Your task to perform on an android device: Open Android settings Image 0: 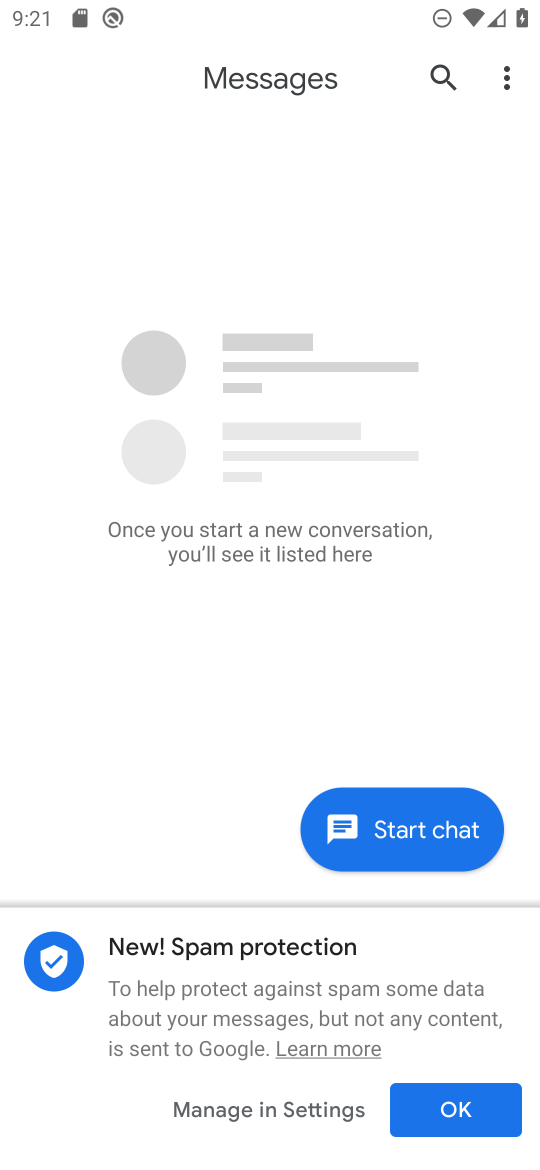
Step 0: press home button
Your task to perform on an android device: Open Android settings Image 1: 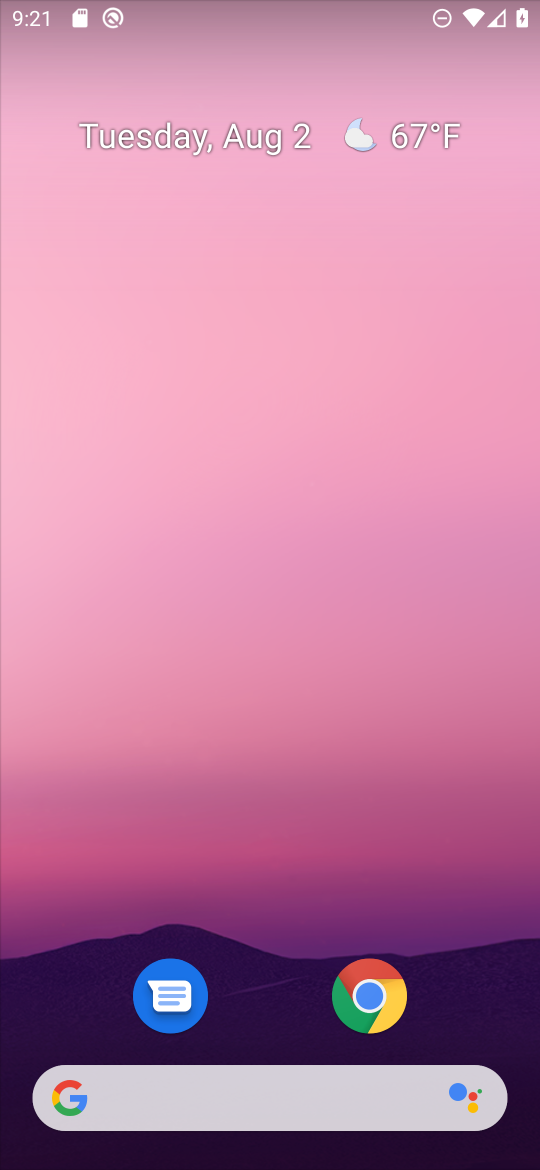
Step 1: drag from (269, 990) to (292, 346)
Your task to perform on an android device: Open Android settings Image 2: 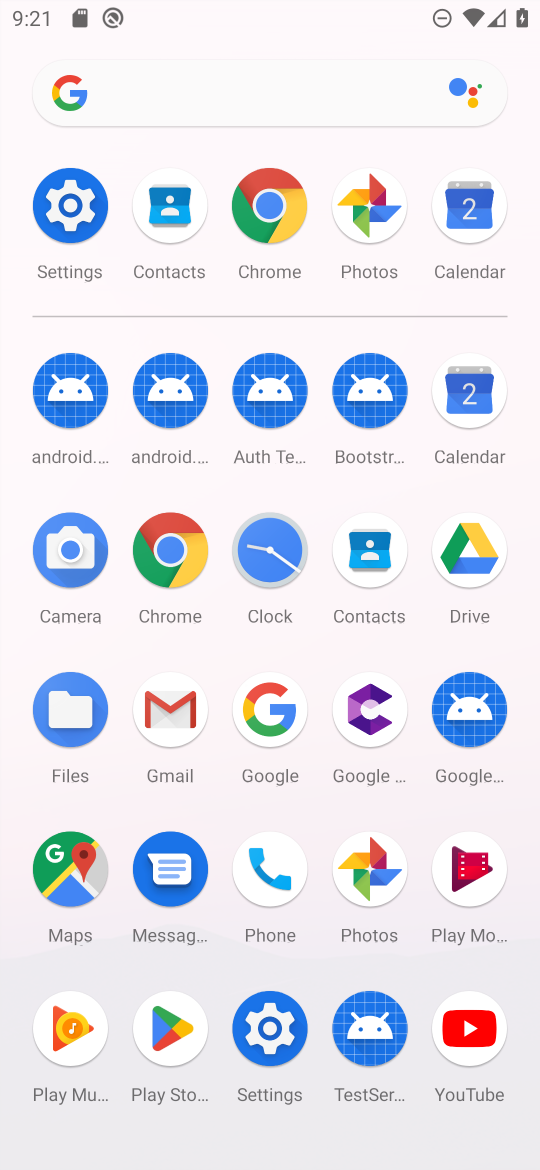
Step 2: click (275, 1031)
Your task to perform on an android device: Open Android settings Image 3: 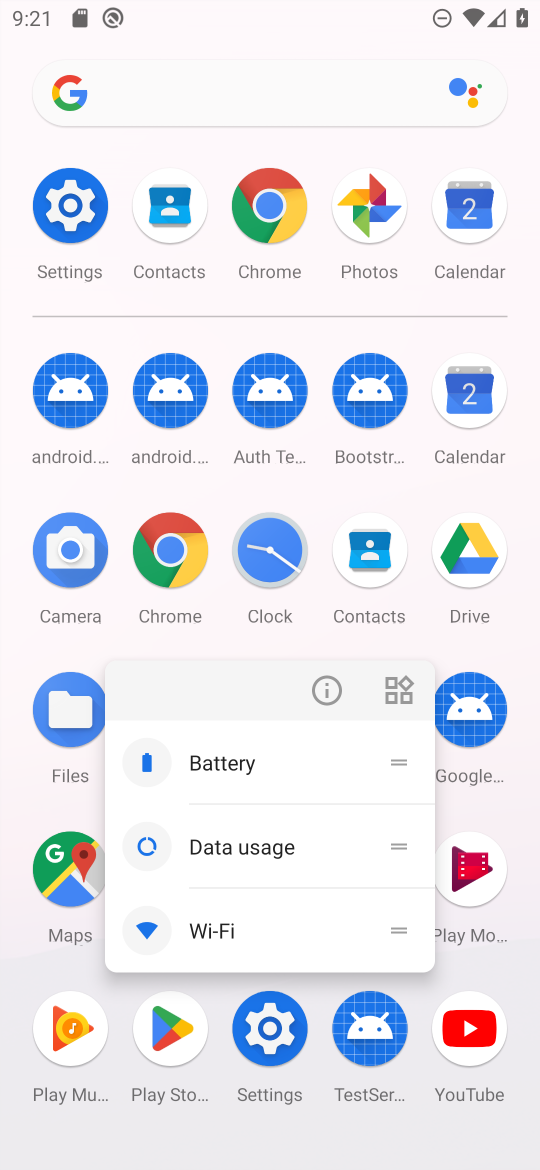
Step 3: click (275, 1031)
Your task to perform on an android device: Open Android settings Image 4: 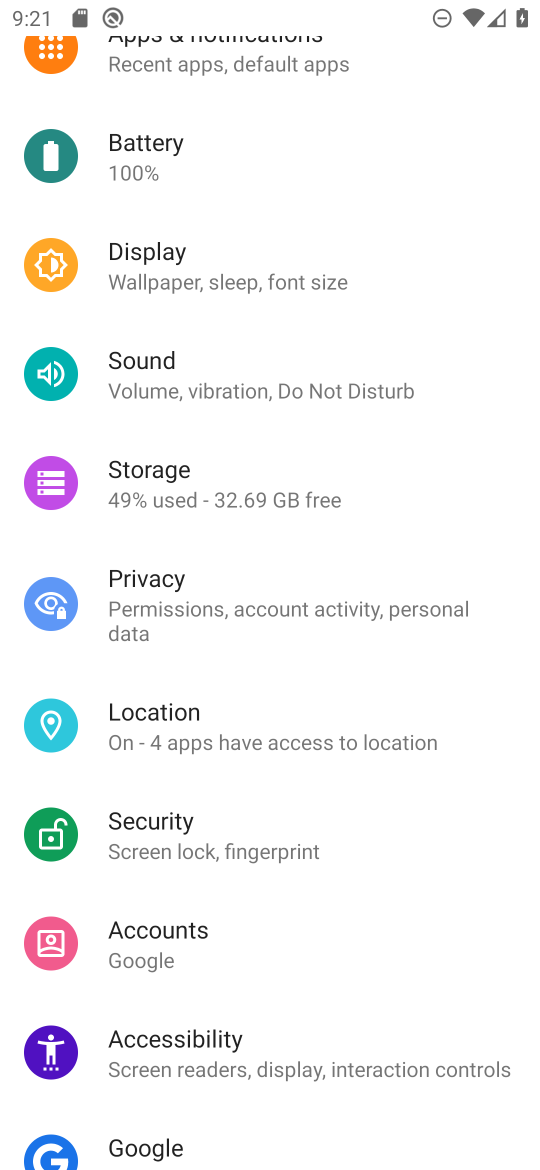
Step 4: drag from (325, 1066) to (287, 245)
Your task to perform on an android device: Open Android settings Image 5: 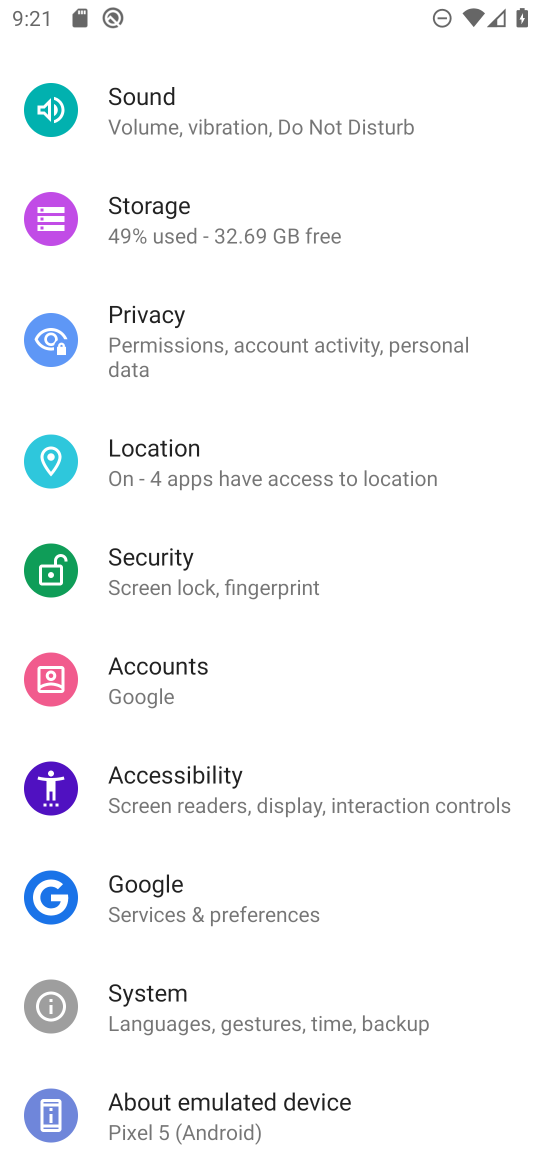
Step 5: click (202, 1110)
Your task to perform on an android device: Open Android settings Image 6: 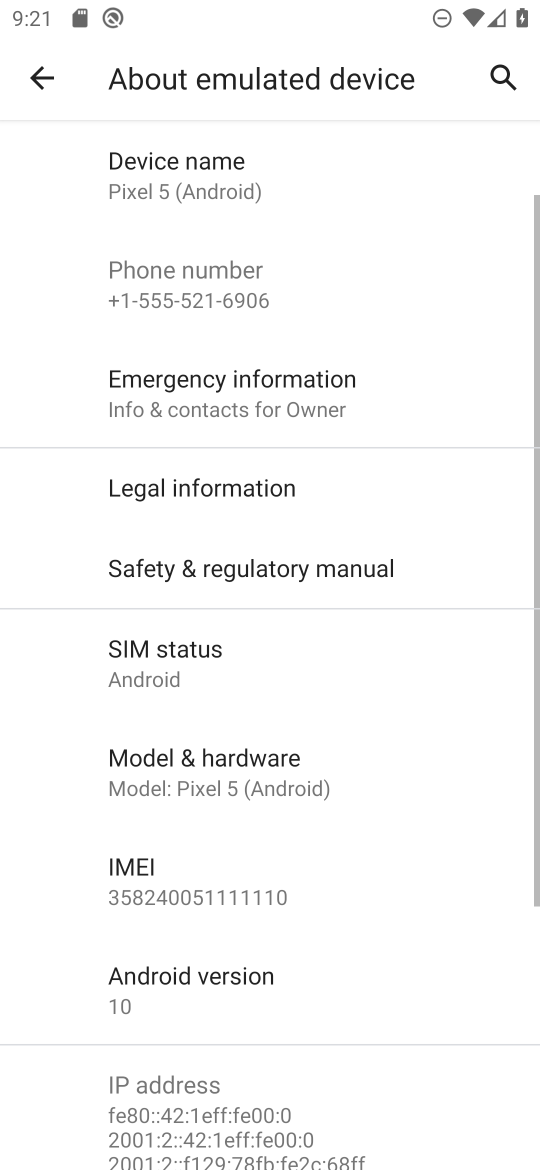
Step 6: click (229, 964)
Your task to perform on an android device: Open Android settings Image 7: 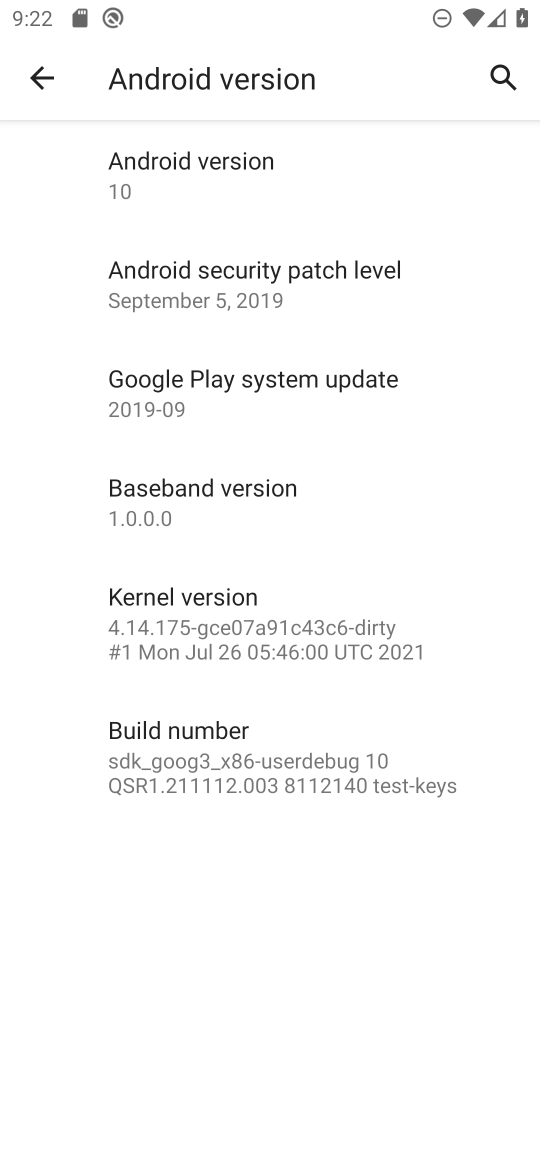
Step 7: task complete